Your task to perform on an android device: Go to Wikipedia Image 0: 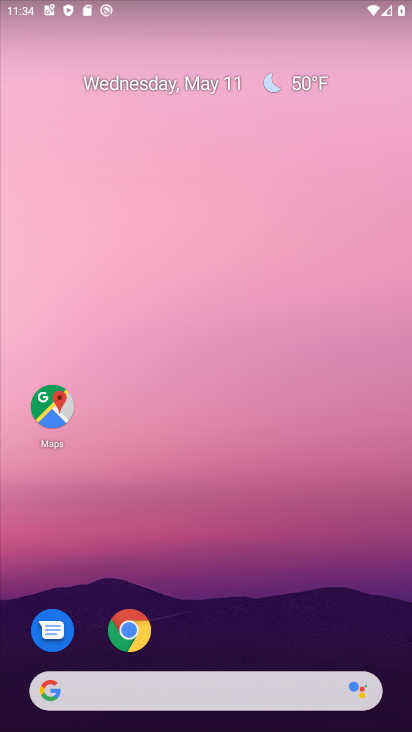
Step 0: click (128, 627)
Your task to perform on an android device: Go to Wikipedia Image 1: 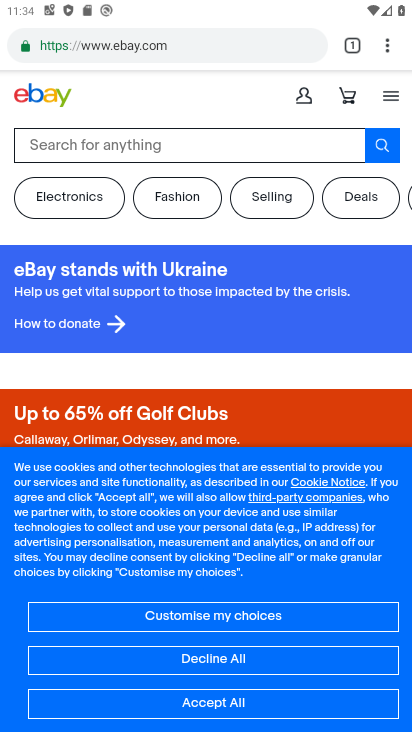
Step 1: click (387, 49)
Your task to perform on an android device: Go to Wikipedia Image 2: 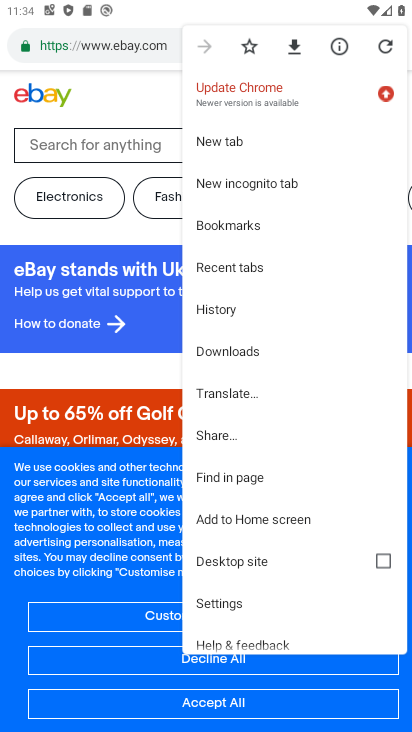
Step 2: click (226, 135)
Your task to perform on an android device: Go to Wikipedia Image 3: 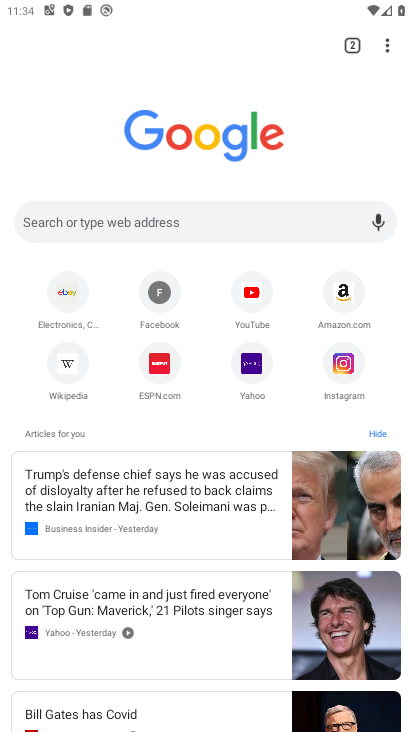
Step 3: click (64, 365)
Your task to perform on an android device: Go to Wikipedia Image 4: 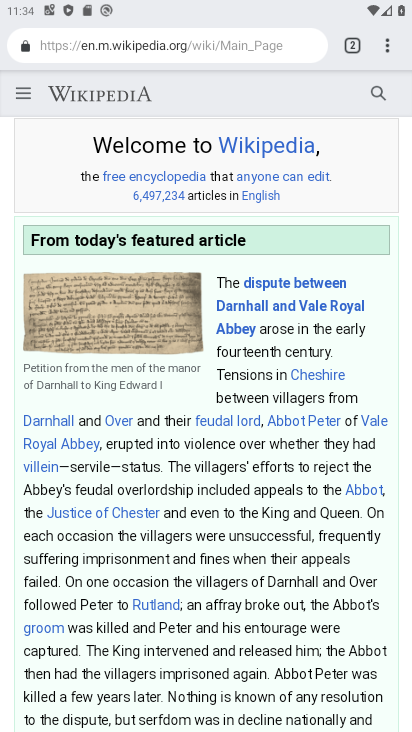
Step 4: task complete